Your task to perform on an android device: Open privacy settings Image 0: 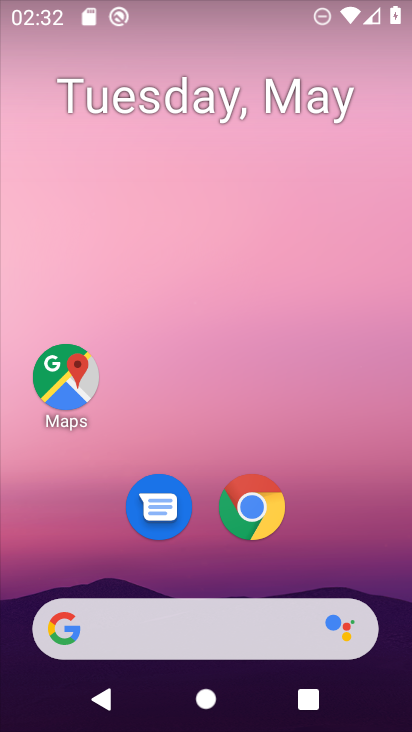
Step 0: drag from (200, 559) to (165, 177)
Your task to perform on an android device: Open privacy settings Image 1: 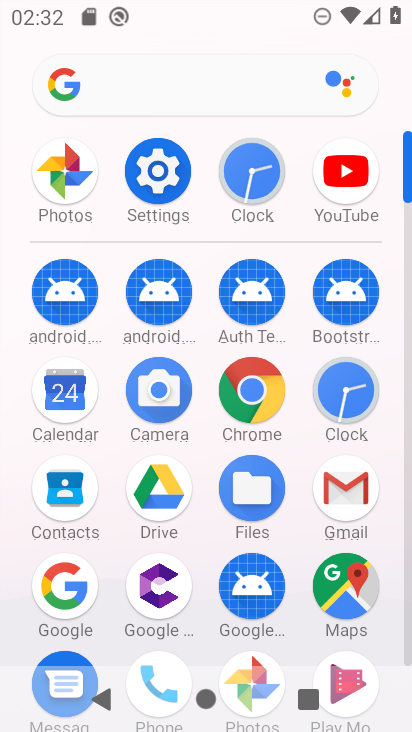
Step 1: click (145, 169)
Your task to perform on an android device: Open privacy settings Image 2: 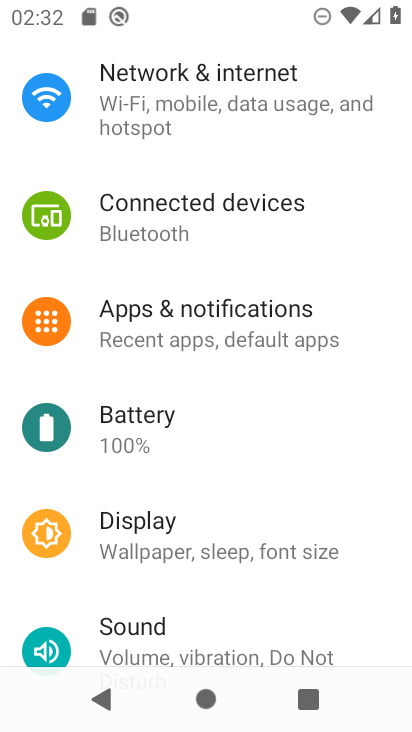
Step 2: drag from (238, 578) to (251, 223)
Your task to perform on an android device: Open privacy settings Image 3: 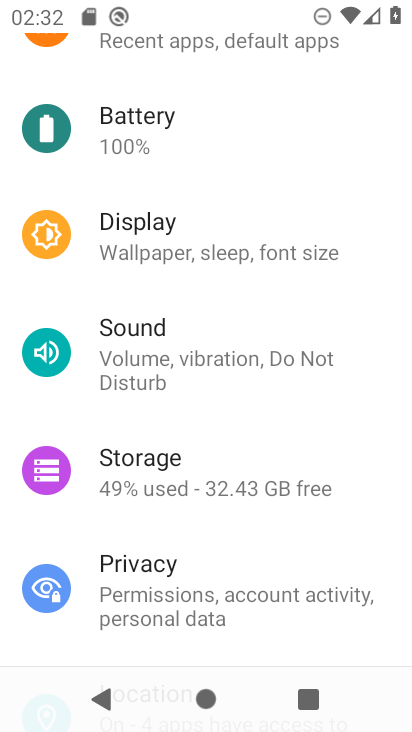
Step 3: click (168, 571)
Your task to perform on an android device: Open privacy settings Image 4: 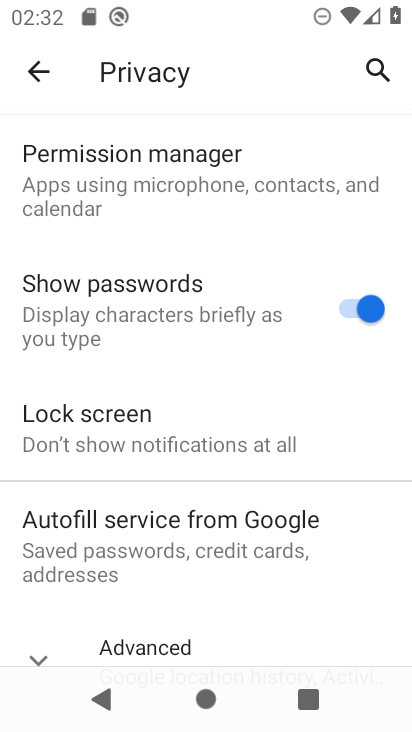
Step 4: task complete